Your task to perform on an android device: open sync settings in chrome Image 0: 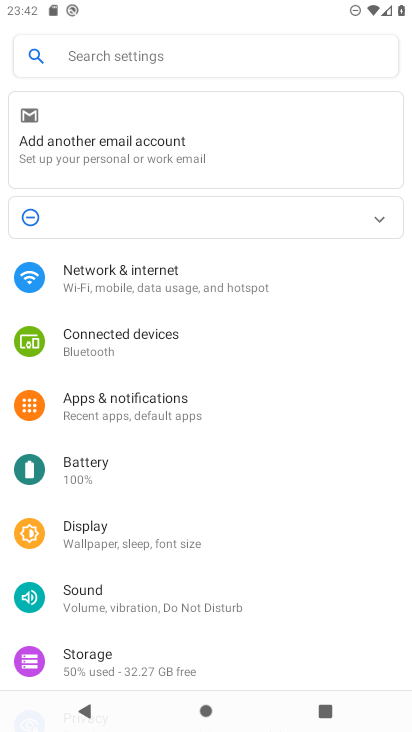
Step 0: press home button
Your task to perform on an android device: open sync settings in chrome Image 1: 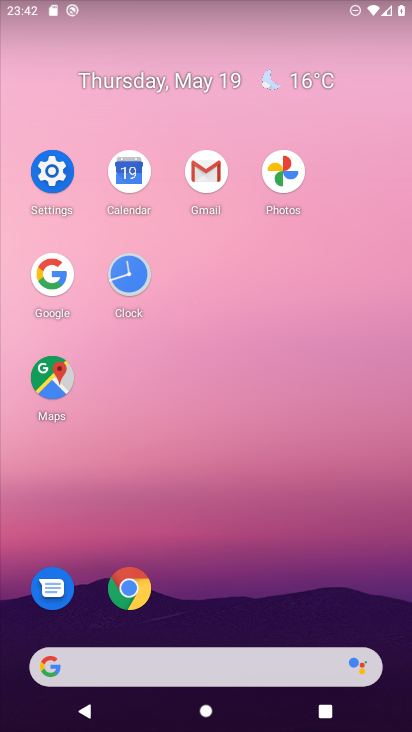
Step 1: click (129, 597)
Your task to perform on an android device: open sync settings in chrome Image 2: 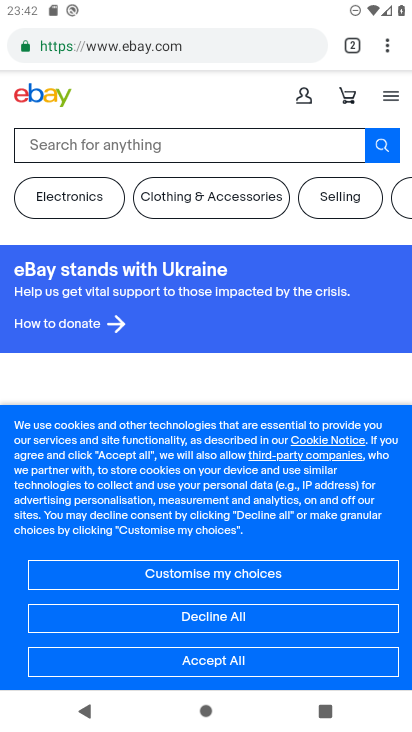
Step 2: click (389, 46)
Your task to perform on an android device: open sync settings in chrome Image 3: 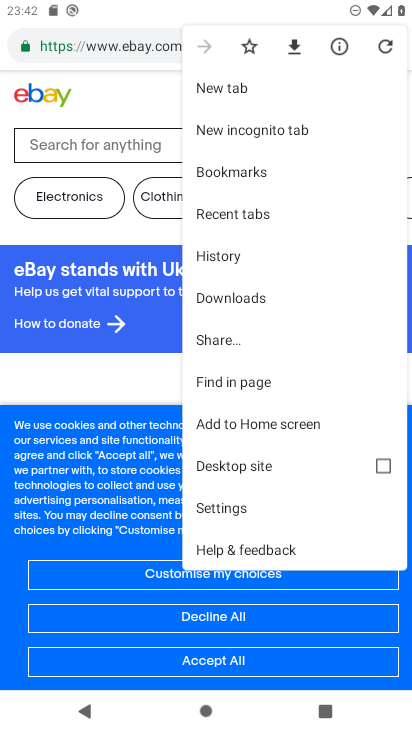
Step 3: drag from (293, 444) to (314, 41)
Your task to perform on an android device: open sync settings in chrome Image 4: 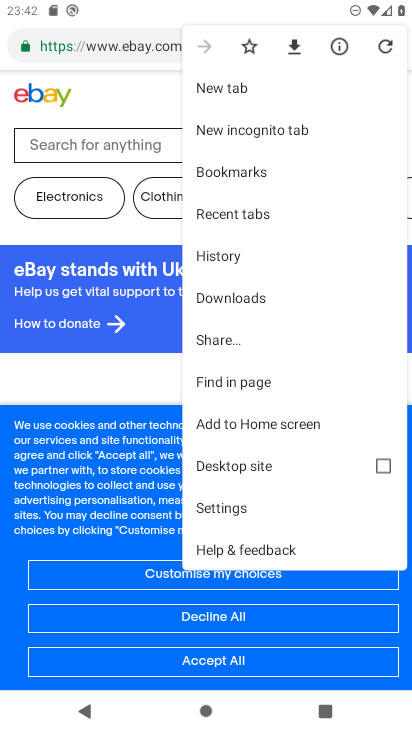
Step 4: click (218, 517)
Your task to perform on an android device: open sync settings in chrome Image 5: 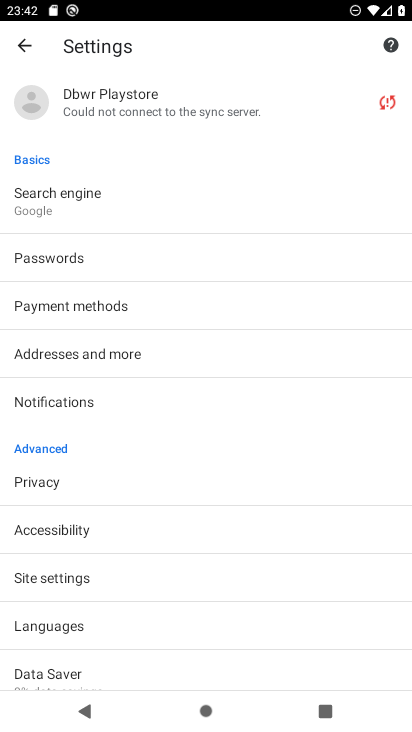
Step 5: drag from (157, 529) to (232, 175)
Your task to perform on an android device: open sync settings in chrome Image 6: 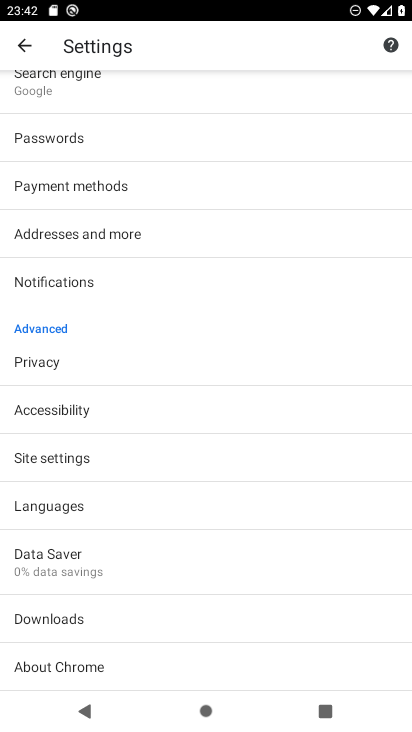
Step 6: click (146, 455)
Your task to perform on an android device: open sync settings in chrome Image 7: 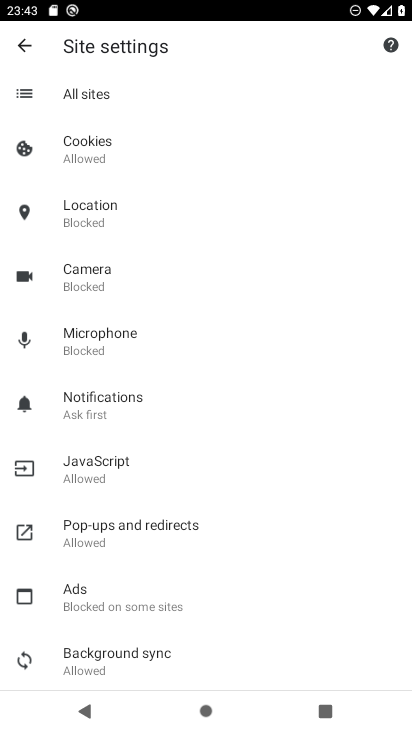
Step 7: click (135, 666)
Your task to perform on an android device: open sync settings in chrome Image 8: 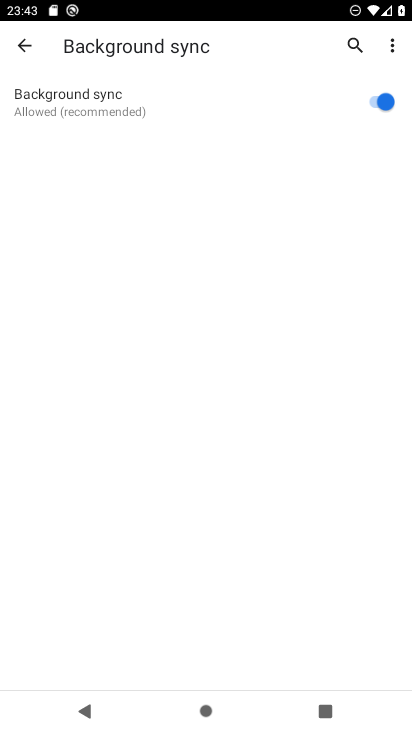
Step 8: task complete